Your task to perform on an android device: Open wifi settings Image 0: 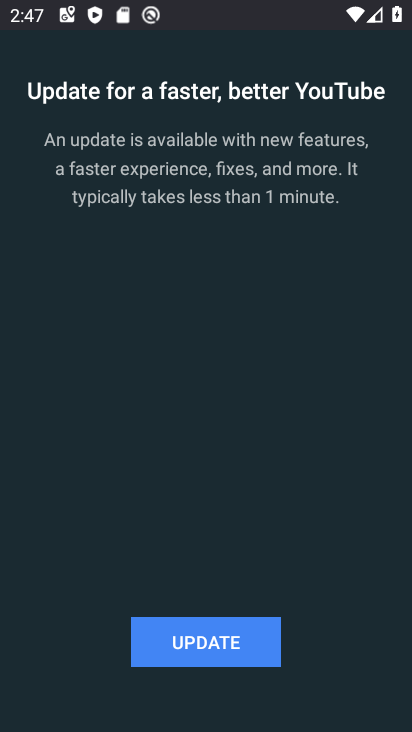
Step 0: press back button
Your task to perform on an android device: Open wifi settings Image 1: 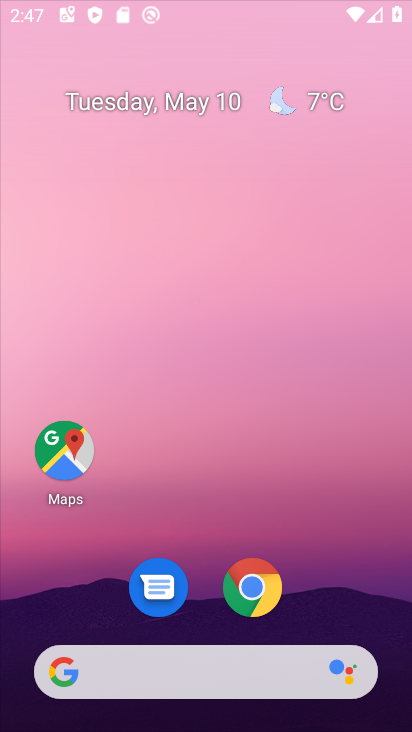
Step 1: drag from (227, 6) to (271, 504)
Your task to perform on an android device: Open wifi settings Image 2: 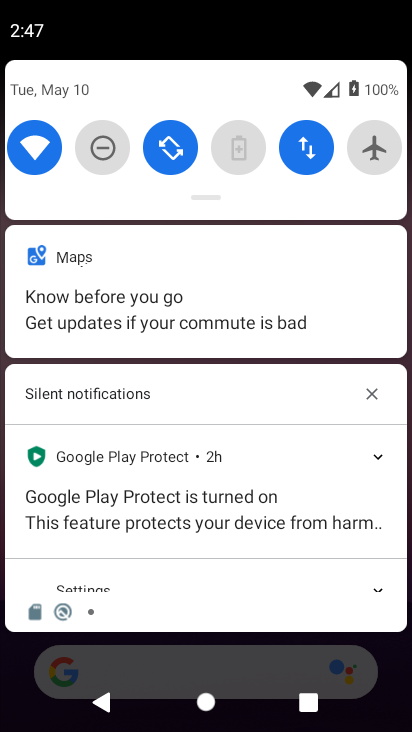
Step 2: click (31, 151)
Your task to perform on an android device: Open wifi settings Image 3: 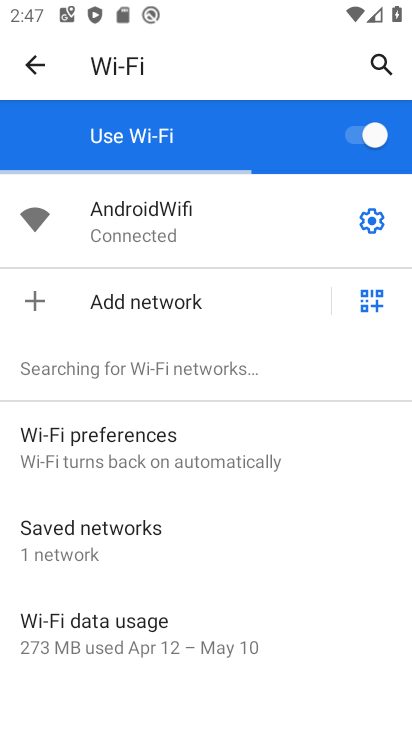
Step 3: task complete